Your task to perform on an android device: set the stopwatch Image 0: 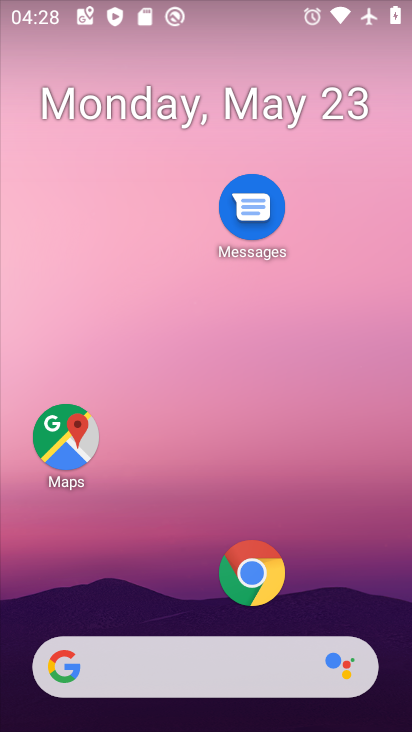
Step 0: drag from (331, 645) to (383, 11)
Your task to perform on an android device: set the stopwatch Image 1: 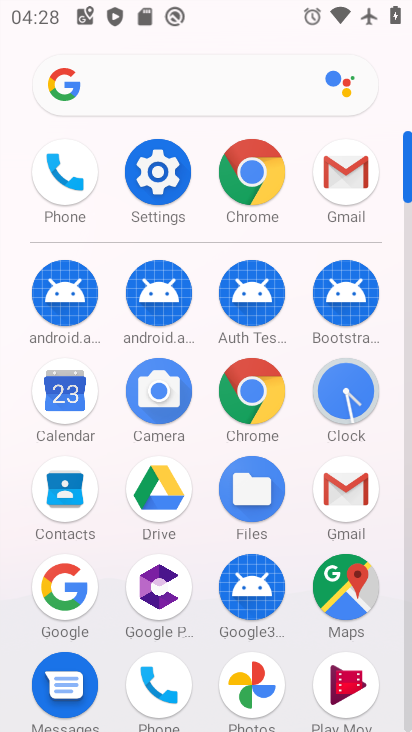
Step 1: click (351, 378)
Your task to perform on an android device: set the stopwatch Image 2: 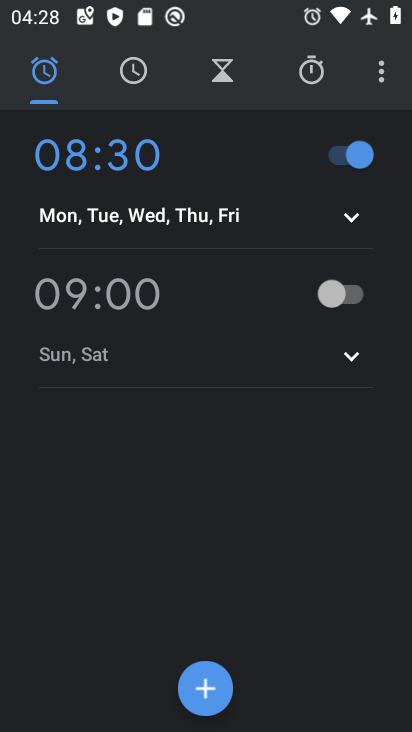
Step 2: click (293, 85)
Your task to perform on an android device: set the stopwatch Image 3: 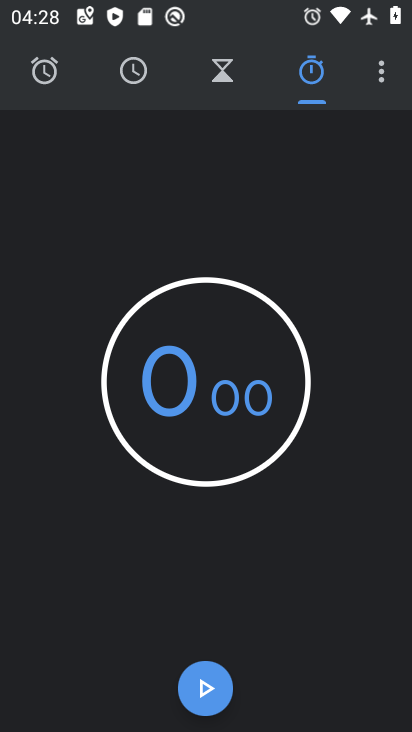
Step 3: task complete